Your task to perform on an android device: install app "Microsoft Authenticator" Image 0: 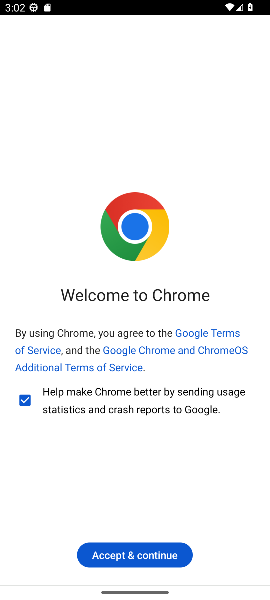
Step 0: press home button
Your task to perform on an android device: install app "Microsoft Authenticator" Image 1: 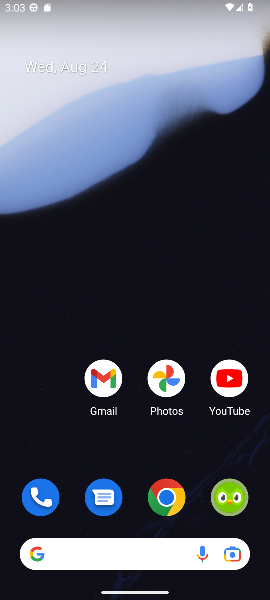
Step 1: drag from (131, 553) to (145, 163)
Your task to perform on an android device: install app "Microsoft Authenticator" Image 2: 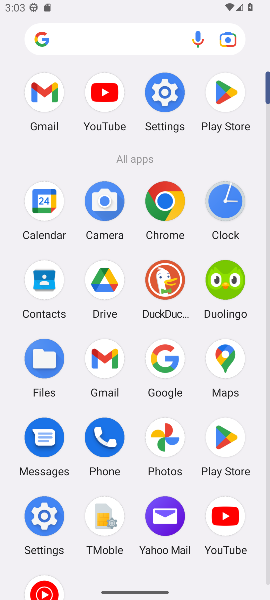
Step 2: click (225, 98)
Your task to perform on an android device: install app "Microsoft Authenticator" Image 3: 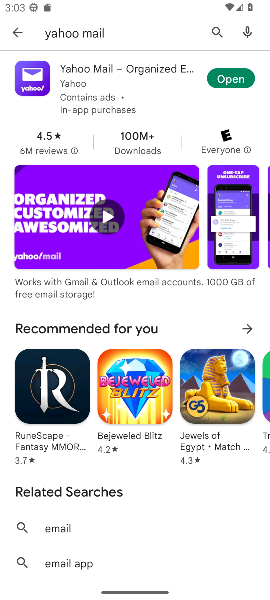
Step 3: press back button
Your task to perform on an android device: install app "Microsoft Authenticator" Image 4: 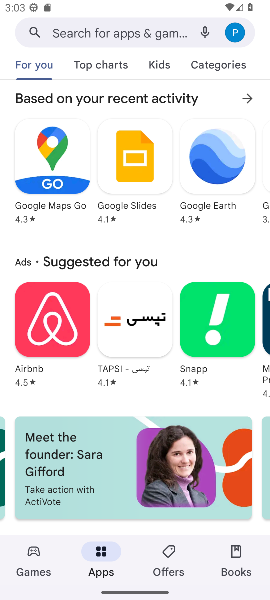
Step 4: click (135, 34)
Your task to perform on an android device: install app "Microsoft Authenticator" Image 5: 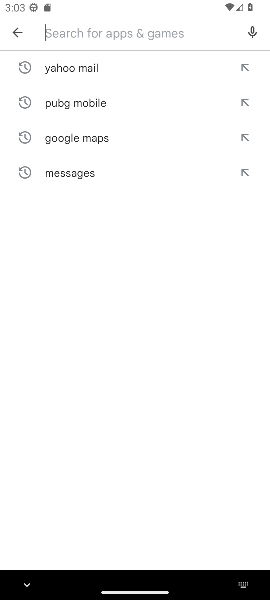
Step 5: type "Microsoft Authenticator"
Your task to perform on an android device: install app "Microsoft Authenticator" Image 6: 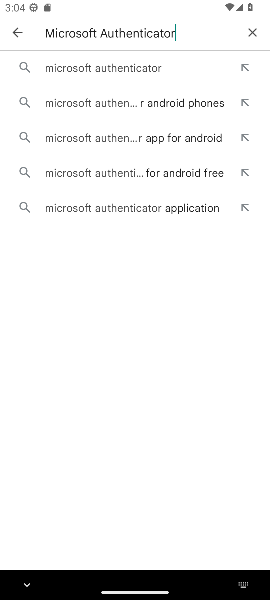
Step 6: click (146, 68)
Your task to perform on an android device: install app "Microsoft Authenticator" Image 7: 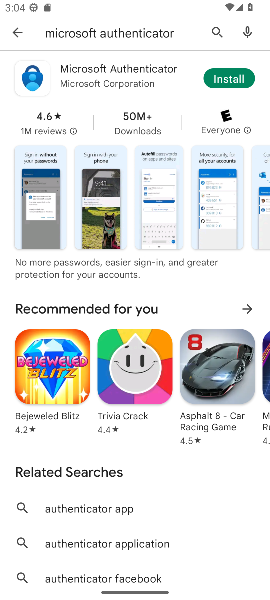
Step 7: click (225, 77)
Your task to perform on an android device: install app "Microsoft Authenticator" Image 8: 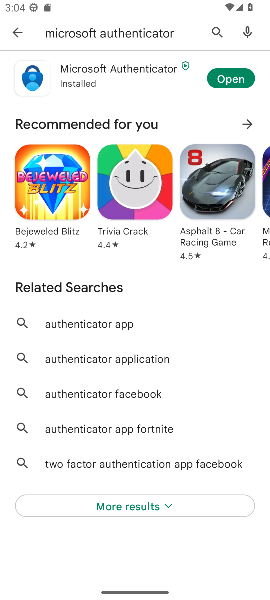
Step 8: task complete